Your task to perform on an android device: When is my next appointment? Image 0: 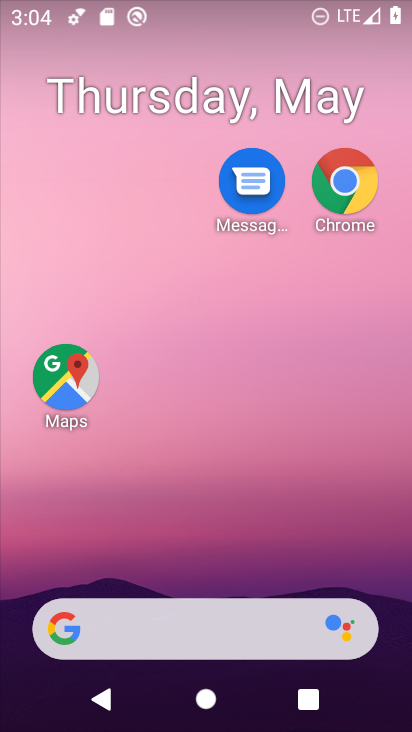
Step 0: drag from (308, 625) to (255, 46)
Your task to perform on an android device: When is my next appointment? Image 1: 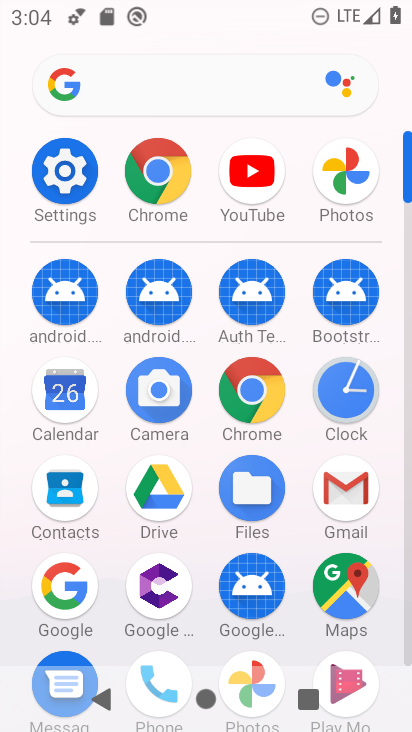
Step 1: drag from (194, 633) to (201, 465)
Your task to perform on an android device: When is my next appointment? Image 2: 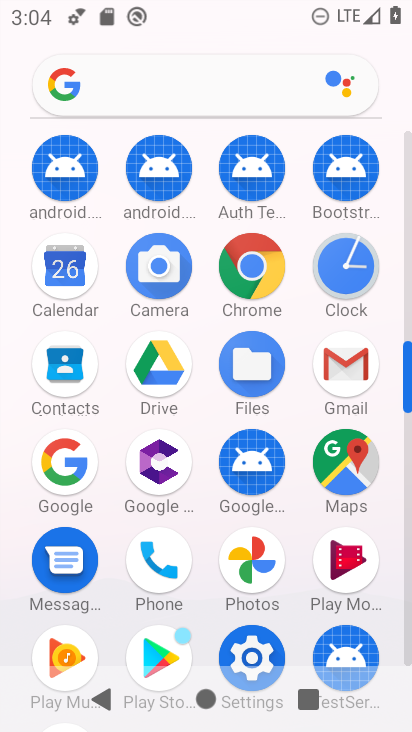
Step 2: click (65, 259)
Your task to perform on an android device: When is my next appointment? Image 3: 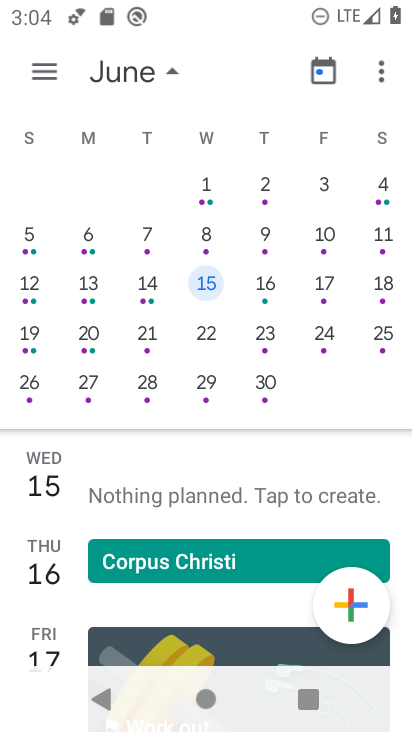
Step 3: drag from (111, 298) to (406, 407)
Your task to perform on an android device: When is my next appointment? Image 4: 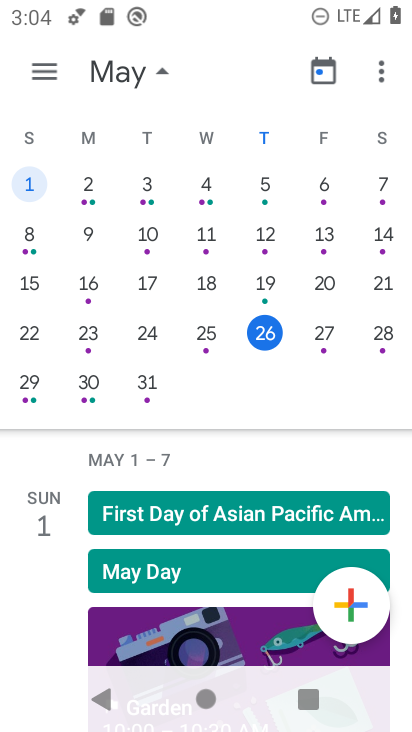
Step 4: click (264, 332)
Your task to perform on an android device: When is my next appointment? Image 5: 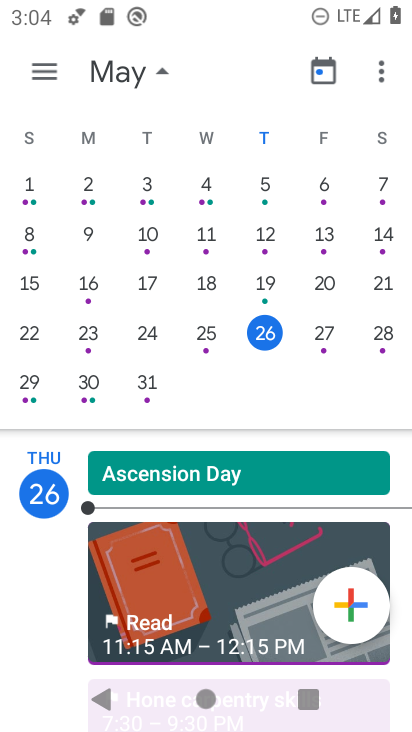
Step 5: task complete